Your task to perform on an android device: Go to internet settings Image 0: 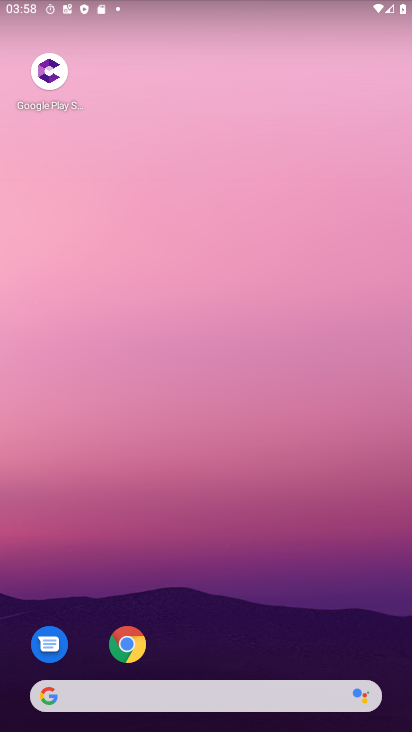
Step 0: drag from (231, 621) to (138, 83)
Your task to perform on an android device: Go to internet settings Image 1: 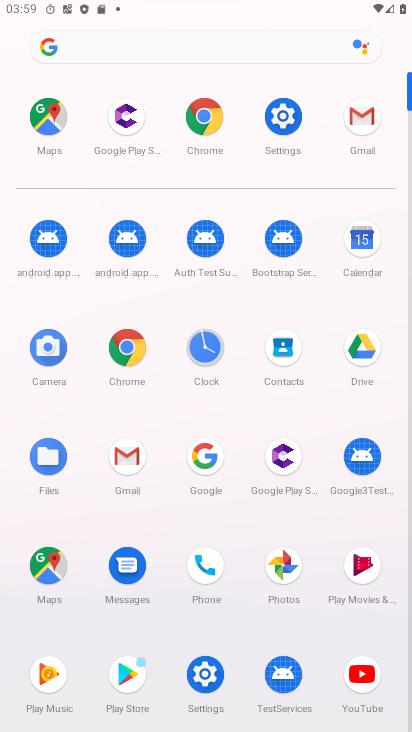
Step 1: click (282, 124)
Your task to perform on an android device: Go to internet settings Image 2: 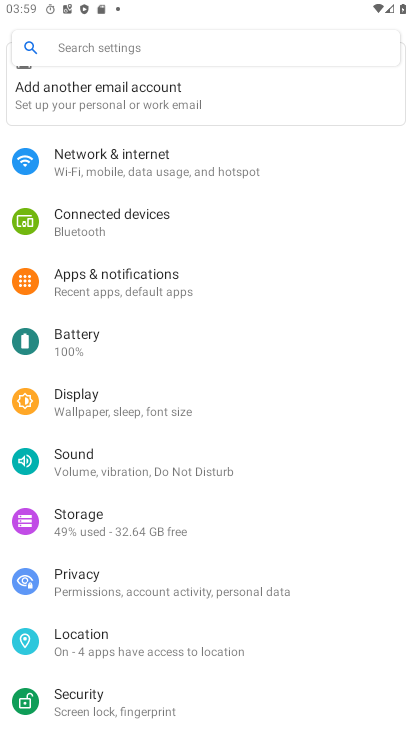
Step 2: click (262, 162)
Your task to perform on an android device: Go to internet settings Image 3: 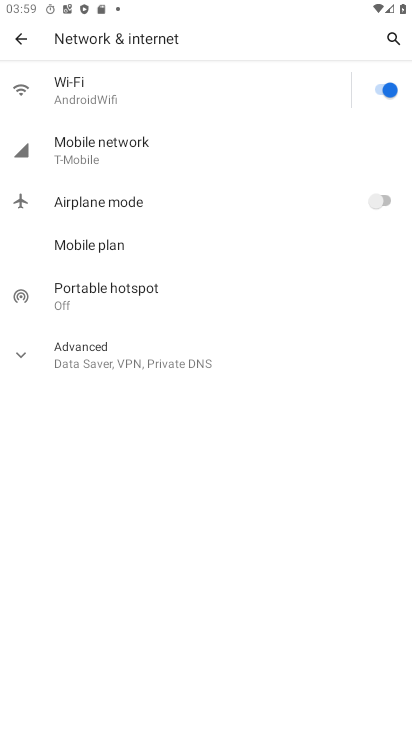
Step 3: task complete